Your task to perform on an android device: Open sound settings Image 0: 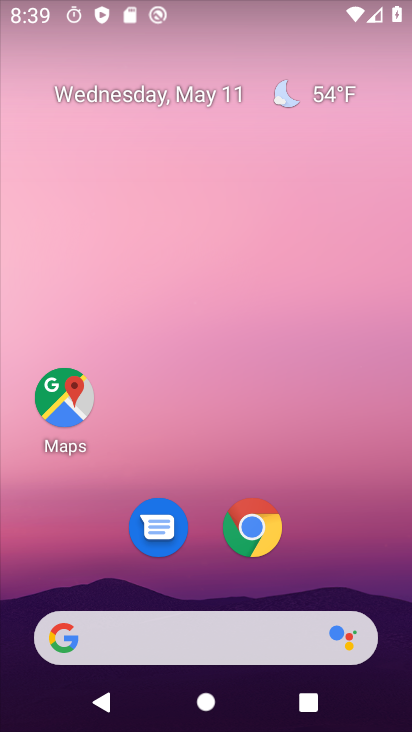
Step 0: drag from (182, 581) to (203, 82)
Your task to perform on an android device: Open sound settings Image 1: 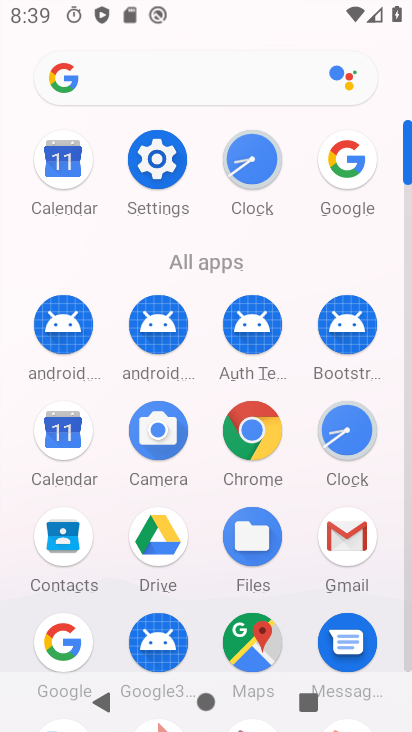
Step 1: click (155, 158)
Your task to perform on an android device: Open sound settings Image 2: 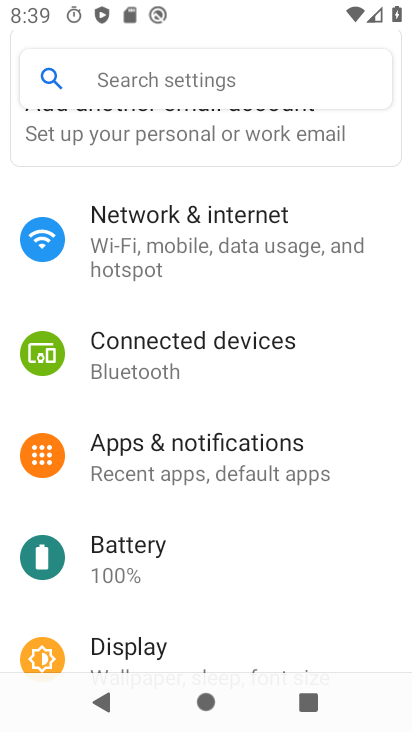
Step 2: drag from (211, 616) to (266, 268)
Your task to perform on an android device: Open sound settings Image 3: 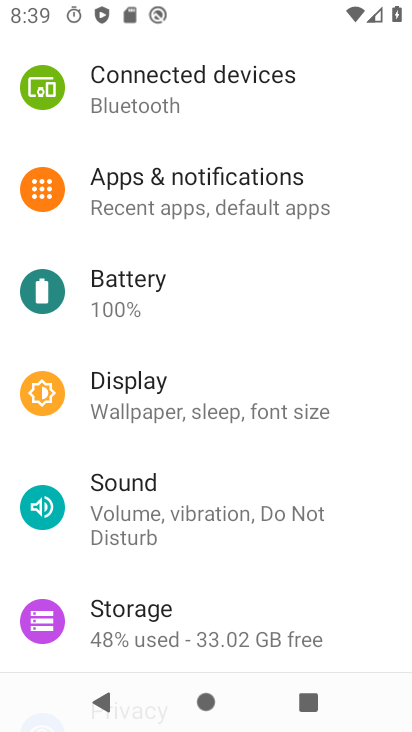
Step 3: click (201, 499)
Your task to perform on an android device: Open sound settings Image 4: 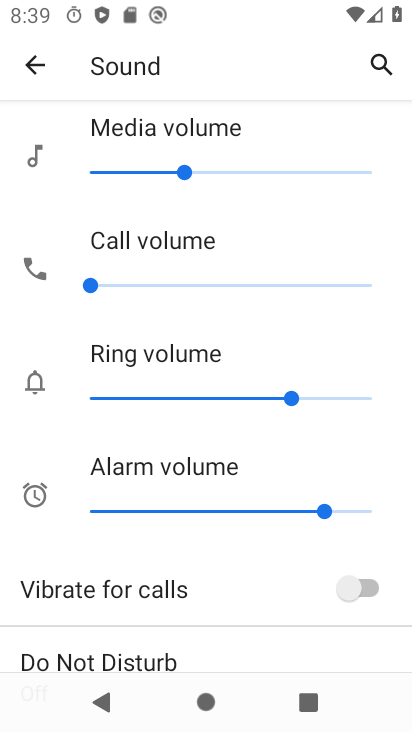
Step 4: task complete